Your task to perform on an android device: Show the shopping cart on ebay.com. Add "dell xps" to the cart on ebay.com, then select checkout. Image 0: 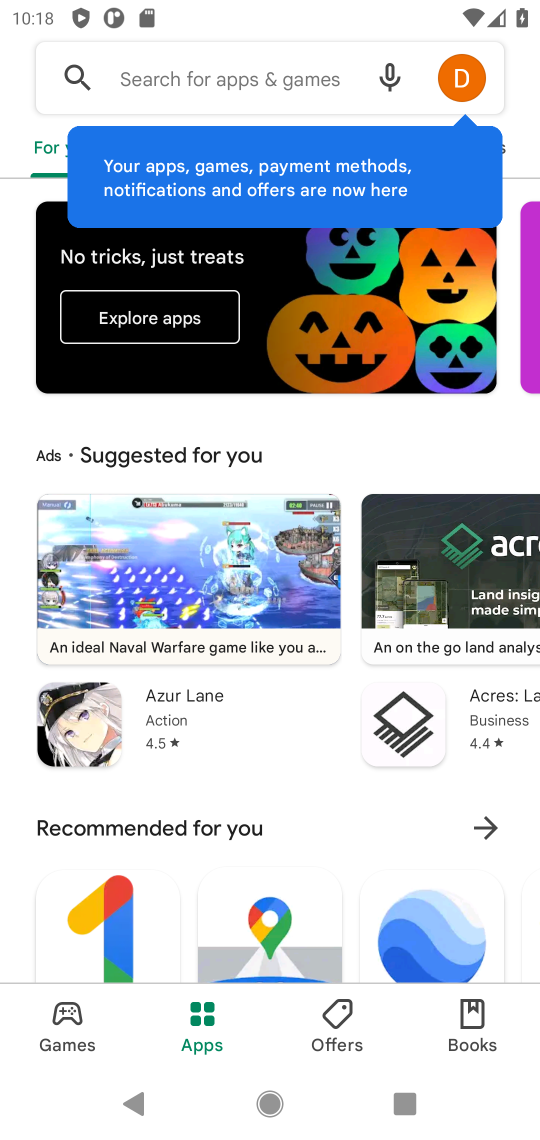
Step 0: press home button
Your task to perform on an android device: Show the shopping cart on ebay.com. Add "dell xps" to the cart on ebay.com, then select checkout. Image 1: 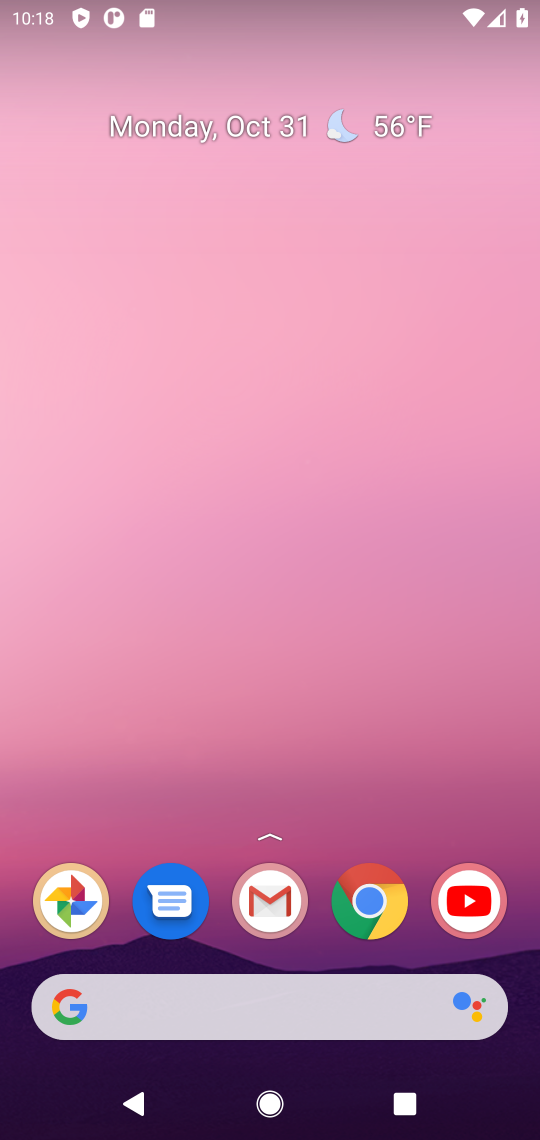
Step 1: drag from (314, 977) to (264, 246)
Your task to perform on an android device: Show the shopping cart on ebay.com. Add "dell xps" to the cart on ebay.com, then select checkout. Image 2: 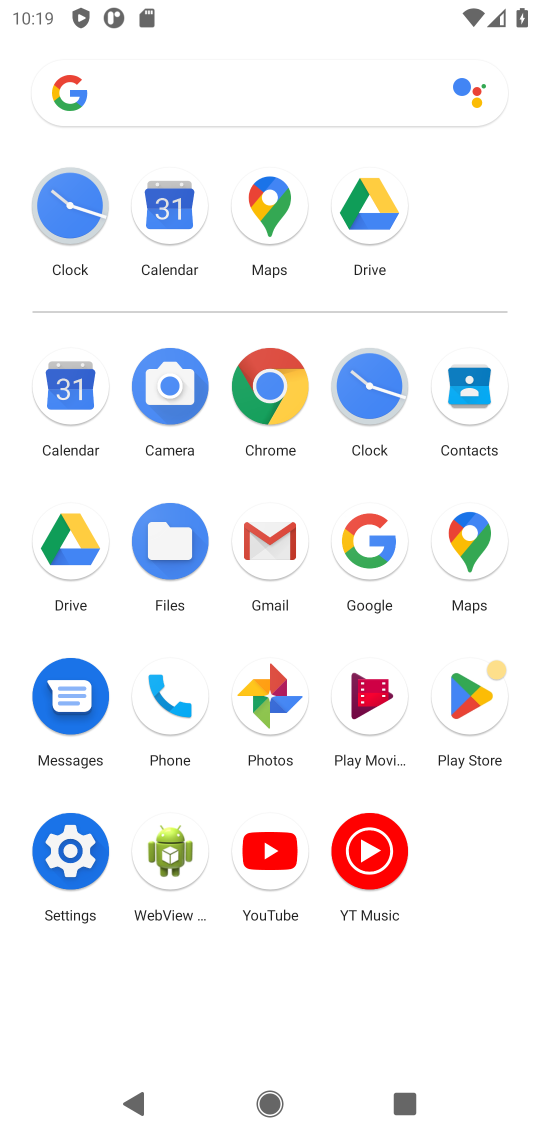
Step 2: click (357, 544)
Your task to perform on an android device: Show the shopping cart on ebay.com. Add "dell xps" to the cart on ebay.com, then select checkout. Image 3: 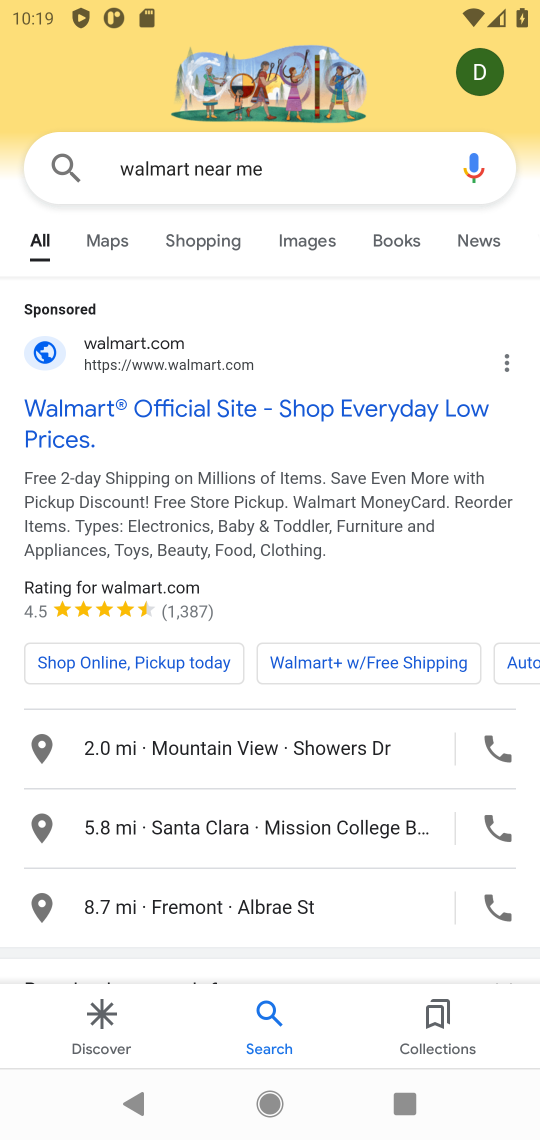
Step 3: click (274, 167)
Your task to perform on an android device: Show the shopping cart on ebay.com. Add "dell xps" to the cart on ebay.com, then select checkout. Image 4: 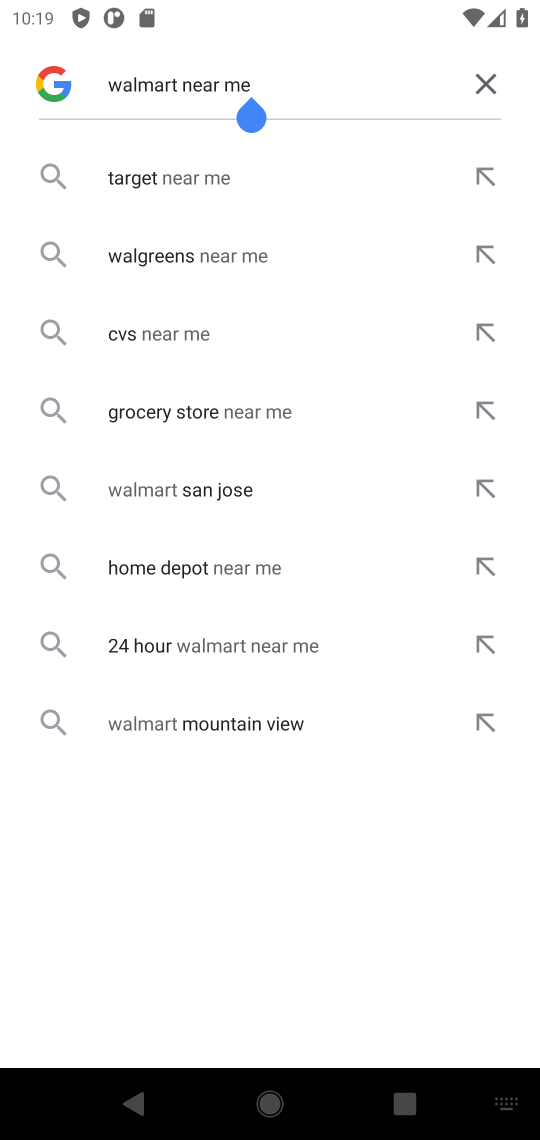
Step 4: click (486, 78)
Your task to perform on an android device: Show the shopping cart on ebay.com. Add "dell xps" to the cart on ebay.com, then select checkout. Image 5: 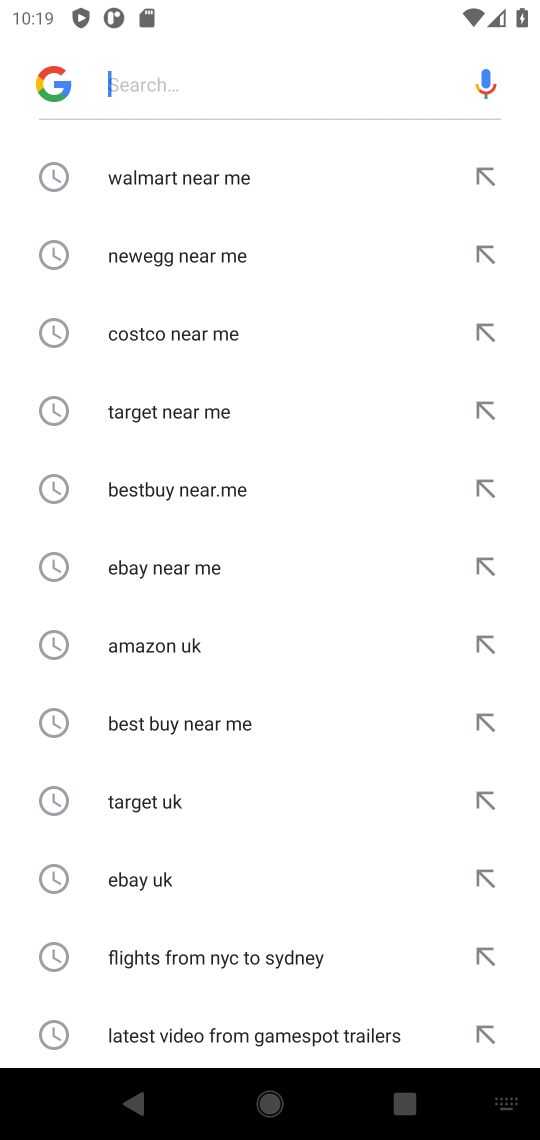
Step 5: click (234, 99)
Your task to perform on an android device: Show the shopping cart on ebay.com. Add "dell xps" to the cart on ebay.com, then select checkout. Image 6: 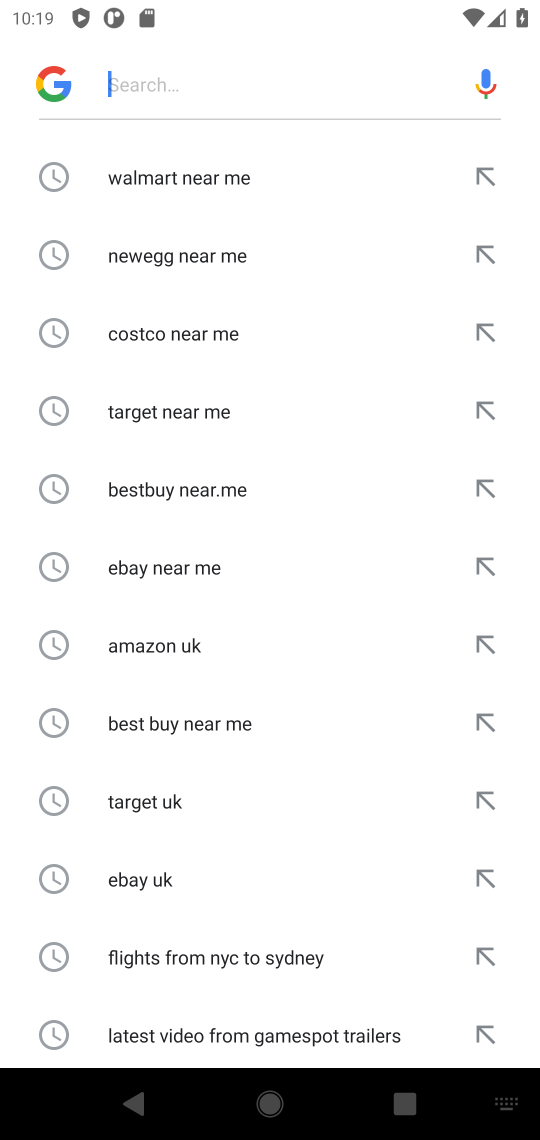
Step 6: type "ebay "
Your task to perform on an android device: Show the shopping cart on ebay.com. Add "dell xps" to the cart on ebay.com, then select checkout. Image 7: 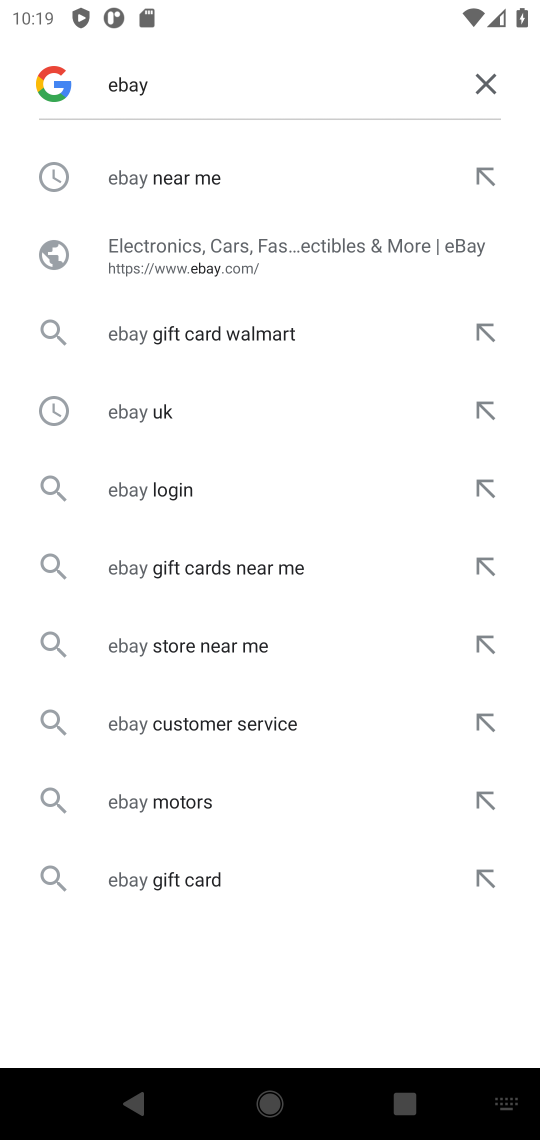
Step 7: click (124, 171)
Your task to perform on an android device: Show the shopping cart on ebay.com. Add "dell xps" to the cart on ebay.com, then select checkout. Image 8: 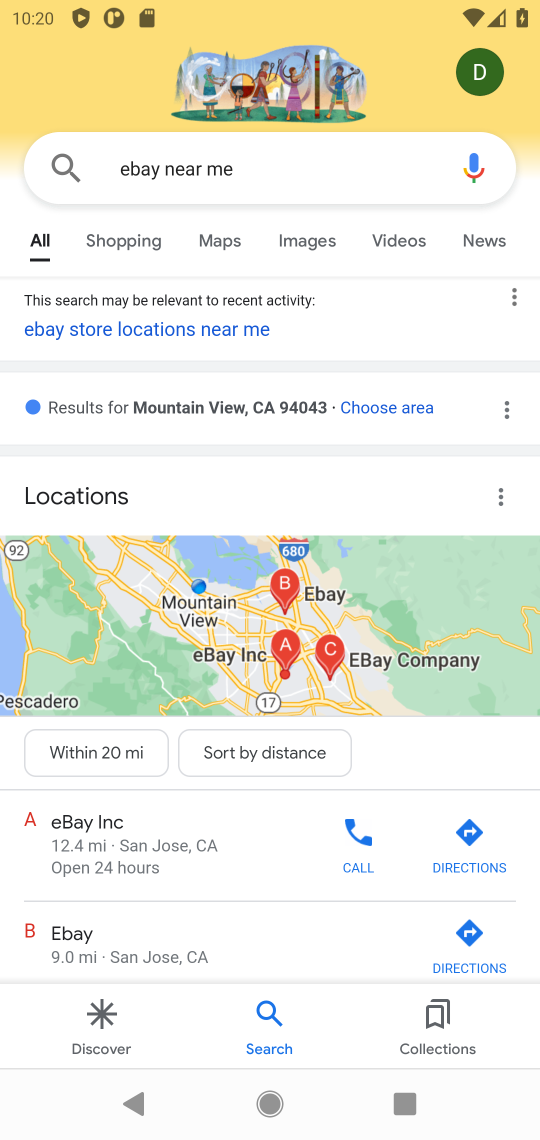
Step 8: drag from (190, 955) to (276, 391)
Your task to perform on an android device: Show the shopping cart on ebay.com. Add "dell xps" to the cart on ebay.com, then select checkout. Image 9: 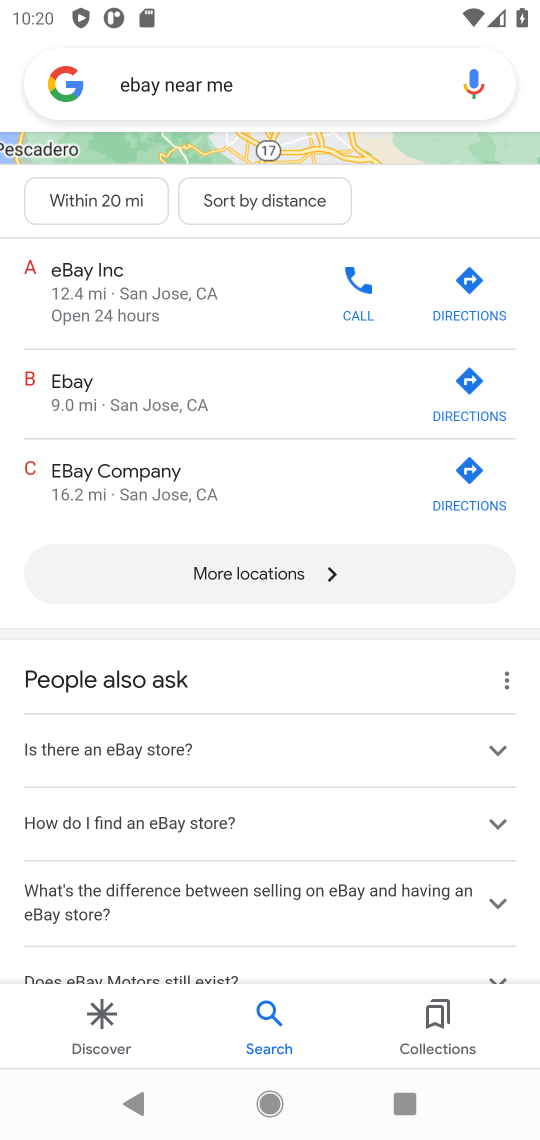
Step 9: drag from (151, 811) to (218, 277)
Your task to perform on an android device: Show the shopping cart on ebay.com. Add "dell xps" to the cart on ebay.com, then select checkout. Image 10: 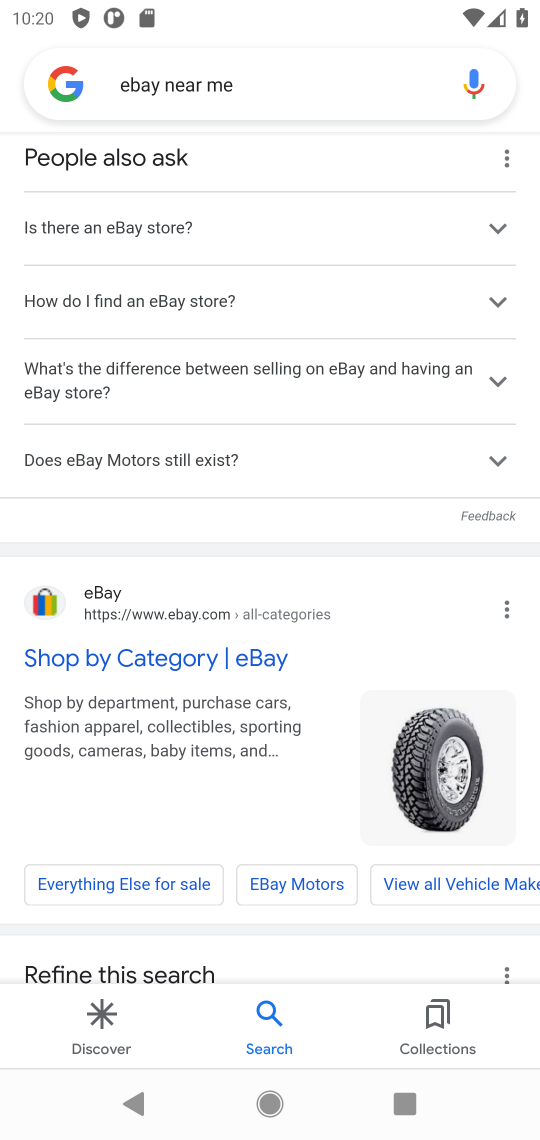
Step 10: click (139, 657)
Your task to perform on an android device: Show the shopping cart on ebay.com. Add "dell xps" to the cart on ebay.com, then select checkout. Image 11: 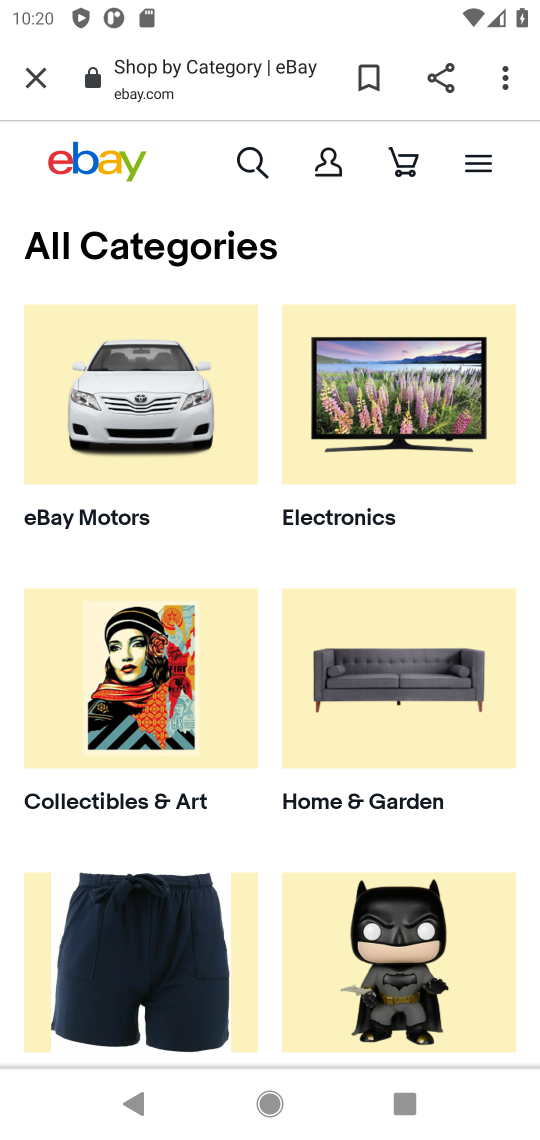
Step 11: click (253, 161)
Your task to perform on an android device: Show the shopping cart on ebay.com. Add "dell xps" to the cart on ebay.com, then select checkout. Image 12: 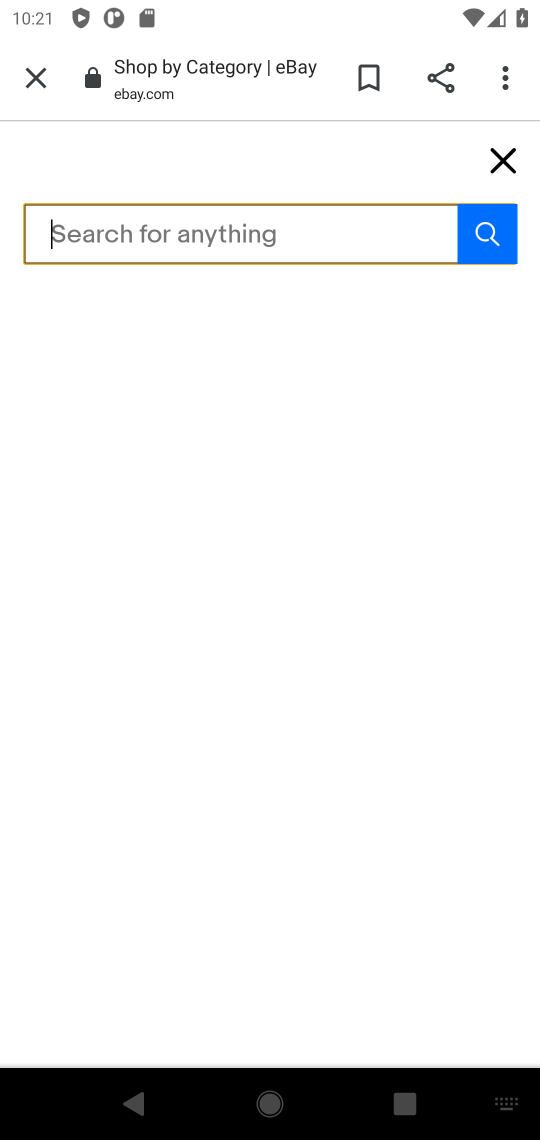
Step 12: click (167, 214)
Your task to perform on an android device: Show the shopping cart on ebay.com. Add "dell xps" to the cart on ebay.com, then select checkout. Image 13: 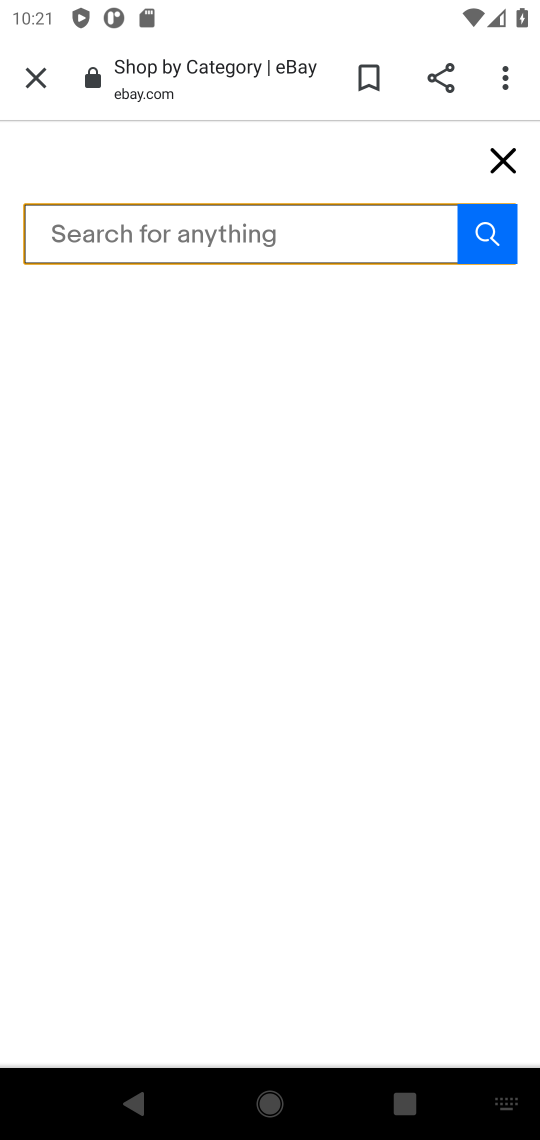
Step 13: type "dell xps "
Your task to perform on an android device: Show the shopping cart on ebay.com. Add "dell xps" to the cart on ebay.com, then select checkout. Image 14: 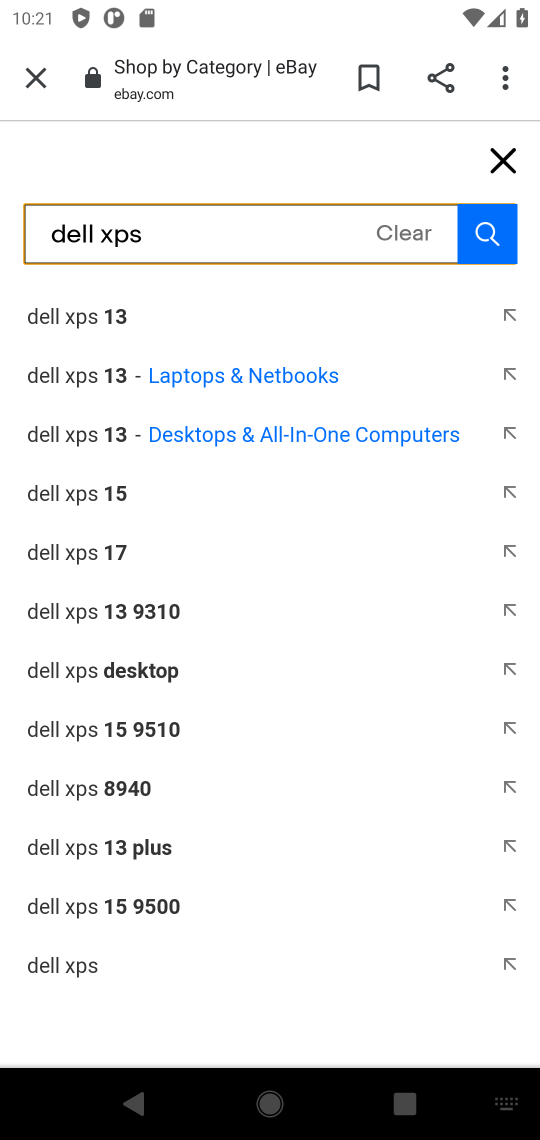
Step 14: click (104, 300)
Your task to perform on an android device: Show the shopping cart on ebay.com. Add "dell xps" to the cart on ebay.com, then select checkout. Image 15: 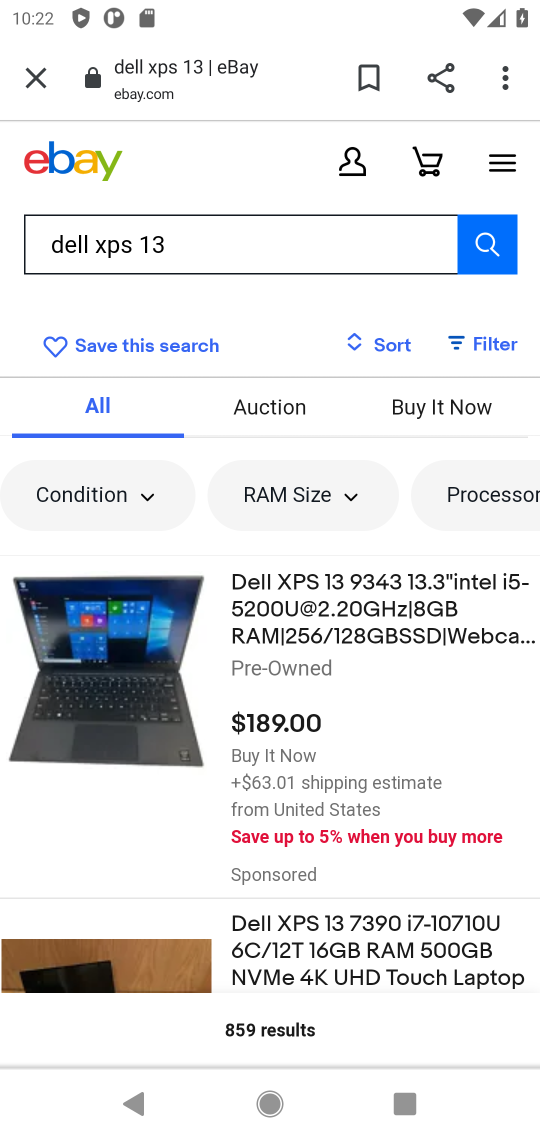
Step 15: click (367, 802)
Your task to perform on an android device: Show the shopping cart on ebay.com. Add "dell xps" to the cart on ebay.com, then select checkout. Image 16: 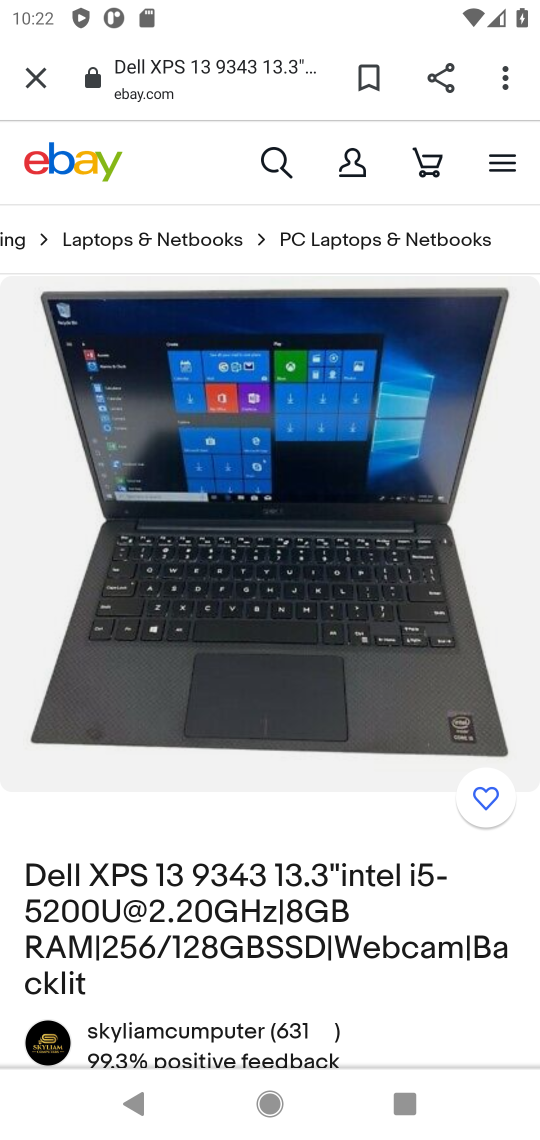
Step 16: drag from (336, 936) to (298, 391)
Your task to perform on an android device: Show the shopping cart on ebay.com. Add "dell xps" to the cart on ebay.com, then select checkout. Image 17: 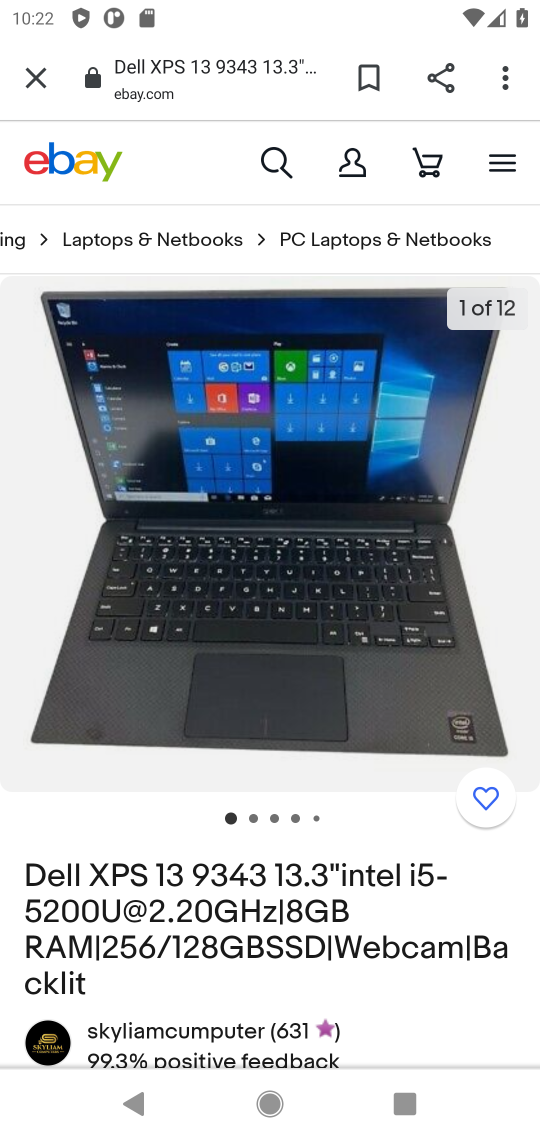
Step 17: drag from (239, 874) to (257, 466)
Your task to perform on an android device: Show the shopping cart on ebay.com. Add "dell xps" to the cart on ebay.com, then select checkout. Image 18: 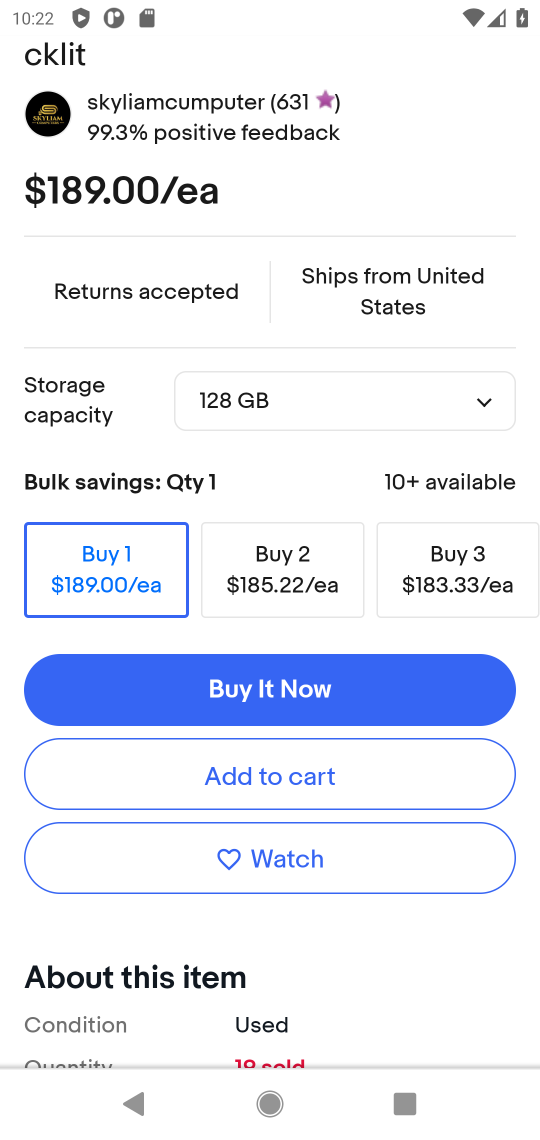
Step 18: click (288, 761)
Your task to perform on an android device: Show the shopping cart on ebay.com. Add "dell xps" to the cart on ebay.com, then select checkout. Image 19: 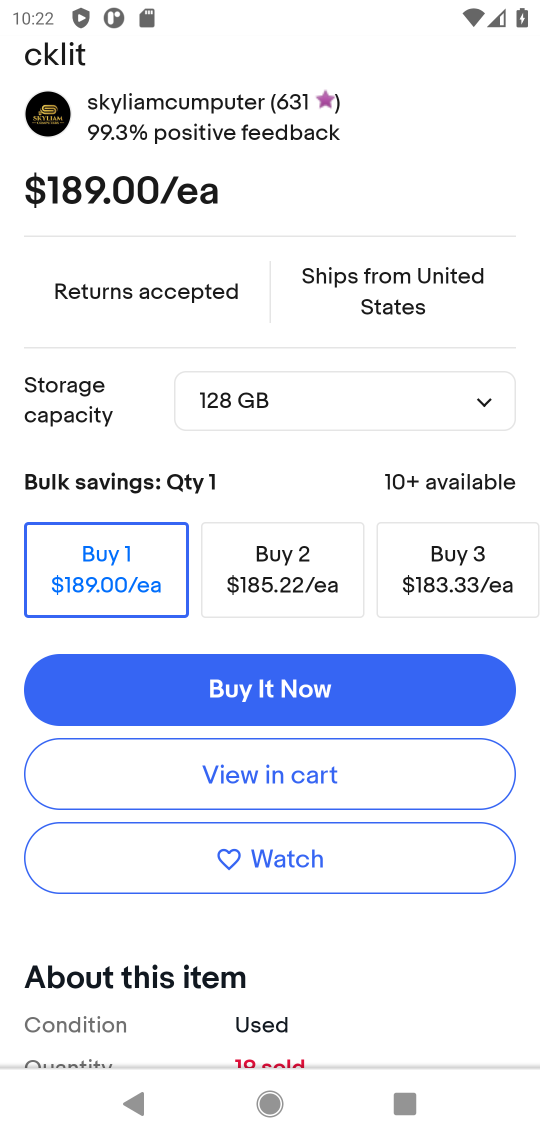
Step 19: task complete